Your task to perform on an android device: Open Google Chrome Image 0: 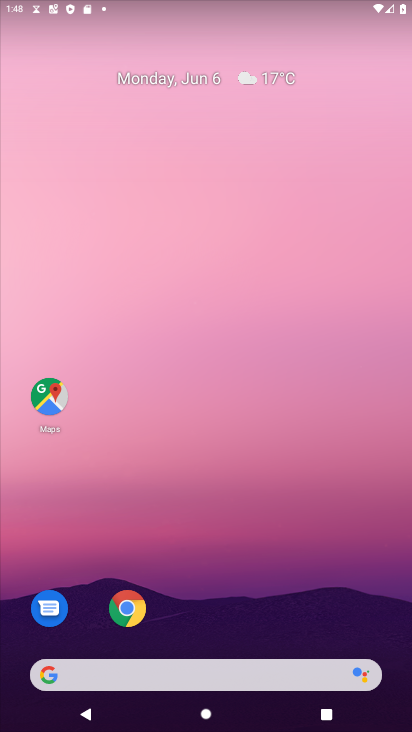
Step 0: drag from (275, 615) to (347, 35)
Your task to perform on an android device: Open Google Chrome Image 1: 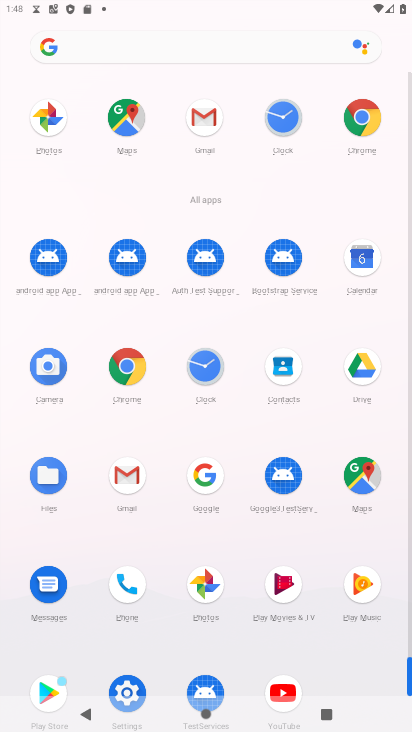
Step 1: click (201, 486)
Your task to perform on an android device: Open Google Chrome Image 2: 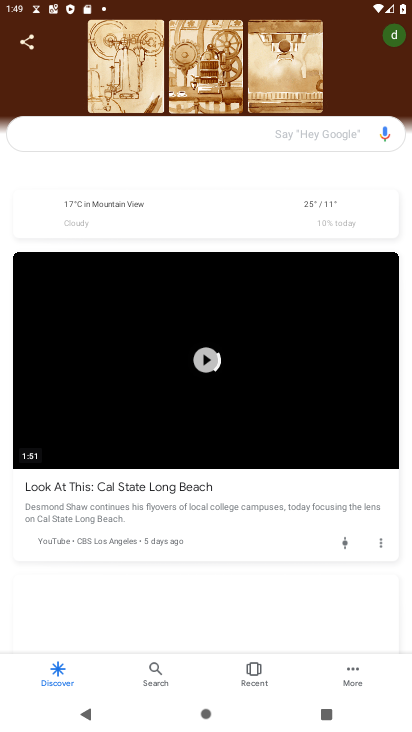
Step 2: press home button
Your task to perform on an android device: Open Google Chrome Image 3: 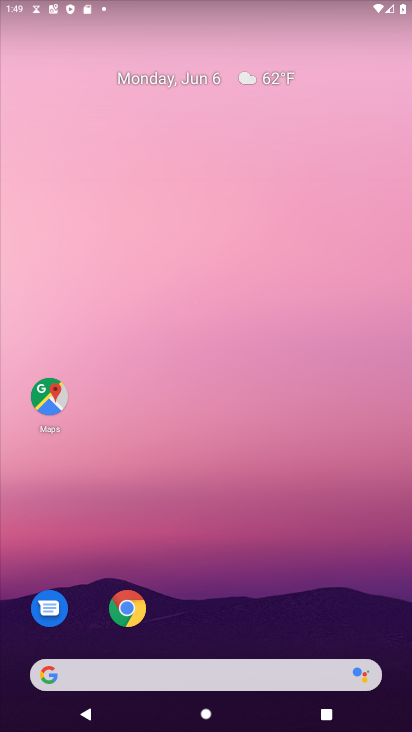
Step 3: drag from (298, 447) to (259, 7)
Your task to perform on an android device: Open Google Chrome Image 4: 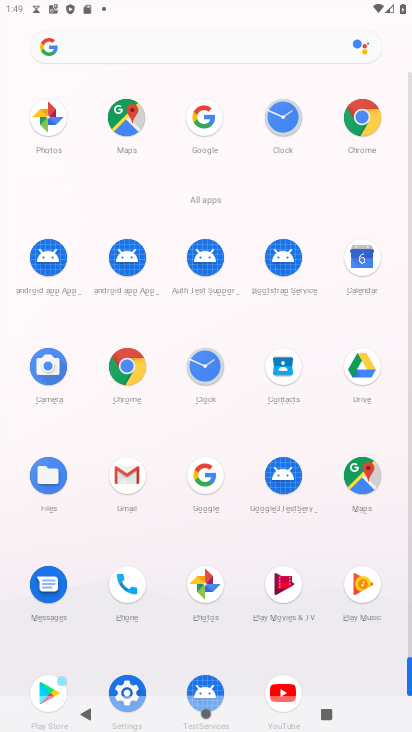
Step 4: click (129, 348)
Your task to perform on an android device: Open Google Chrome Image 5: 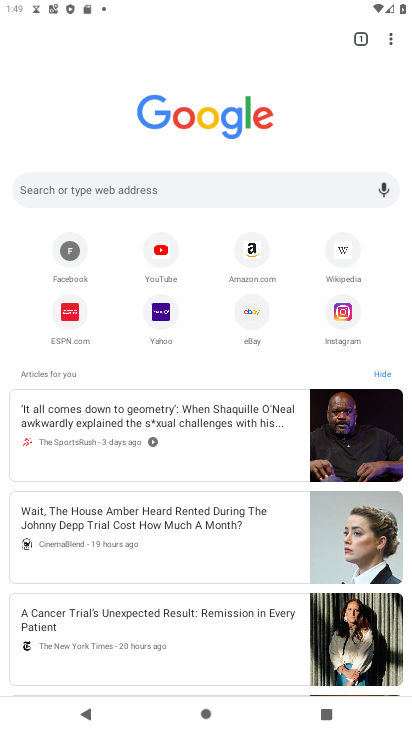
Step 5: click (138, 362)
Your task to perform on an android device: Open Google Chrome Image 6: 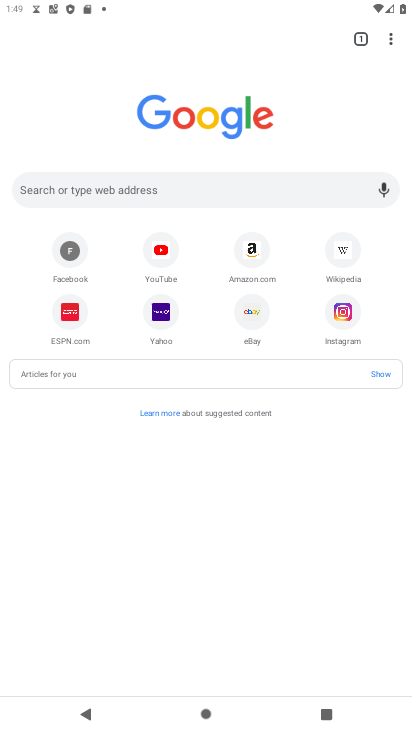
Step 6: press back button
Your task to perform on an android device: Open Google Chrome Image 7: 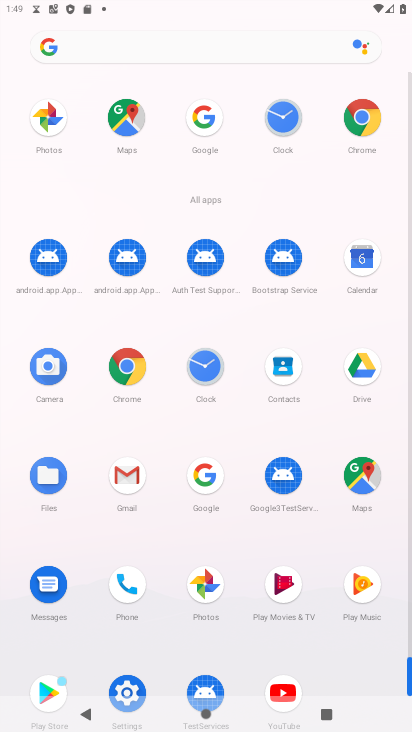
Step 7: click (209, 472)
Your task to perform on an android device: Open Google Chrome Image 8: 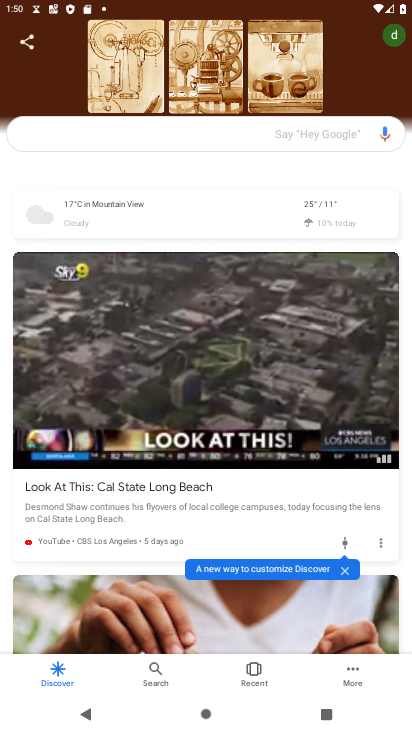
Step 8: task complete